Your task to perform on an android device: Go to internet settings Image 0: 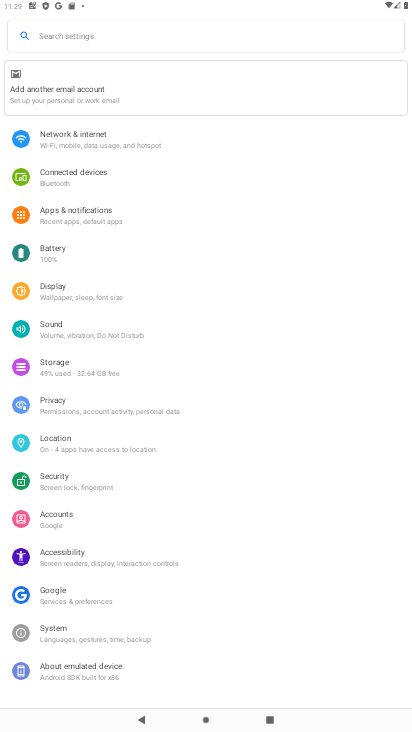
Step 0: click (117, 136)
Your task to perform on an android device: Go to internet settings Image 1: 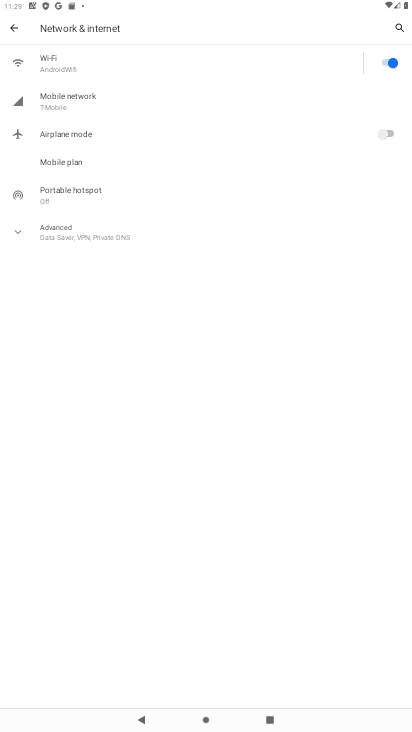
Step 1: click (16, 229)
Your task to perform on an android device: Go to internet settings Image 2: 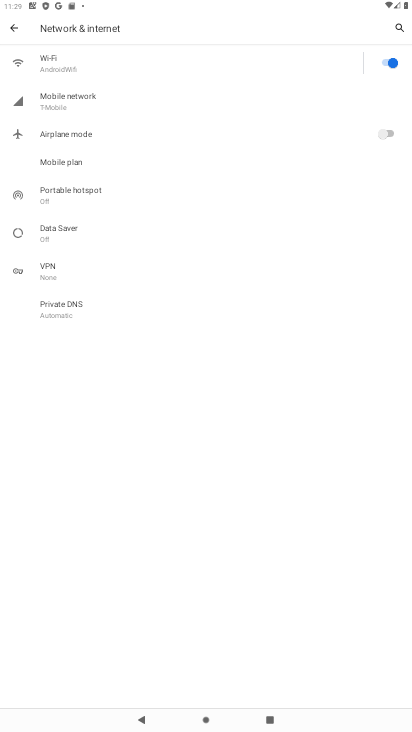
Step 2: task complete